Your task to perform on an android device: turn on the 12-hour format for clock Image 0: 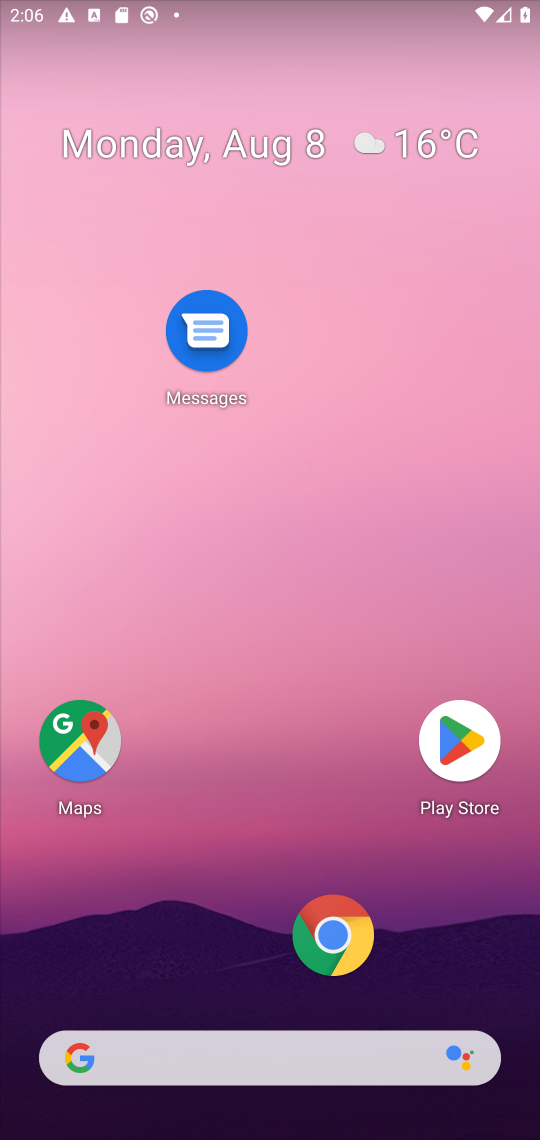
Step 0: drag from (301, 1060) to (210, 253)
Your task to perform on an android device: turn on the 12-hour format for clock Image 1: 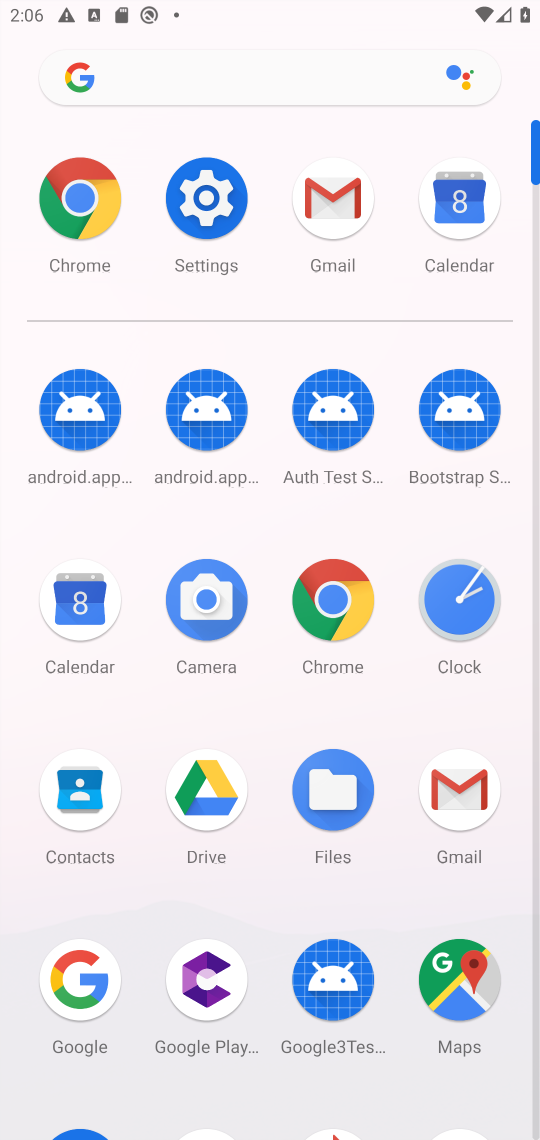
Step 1: click (479, 610)
Your task to perform on an android device: turn on the 12-hour format for clock Image 2: 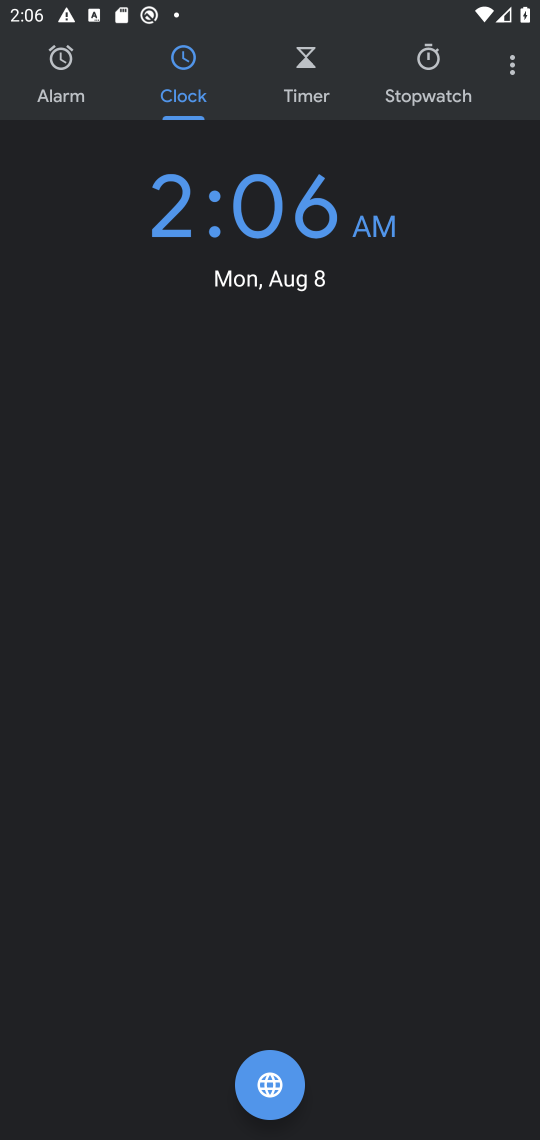
Step 2: click (514, 73)
Your task to perform on an android device: turn on the 12-hour format for clock Image 3: 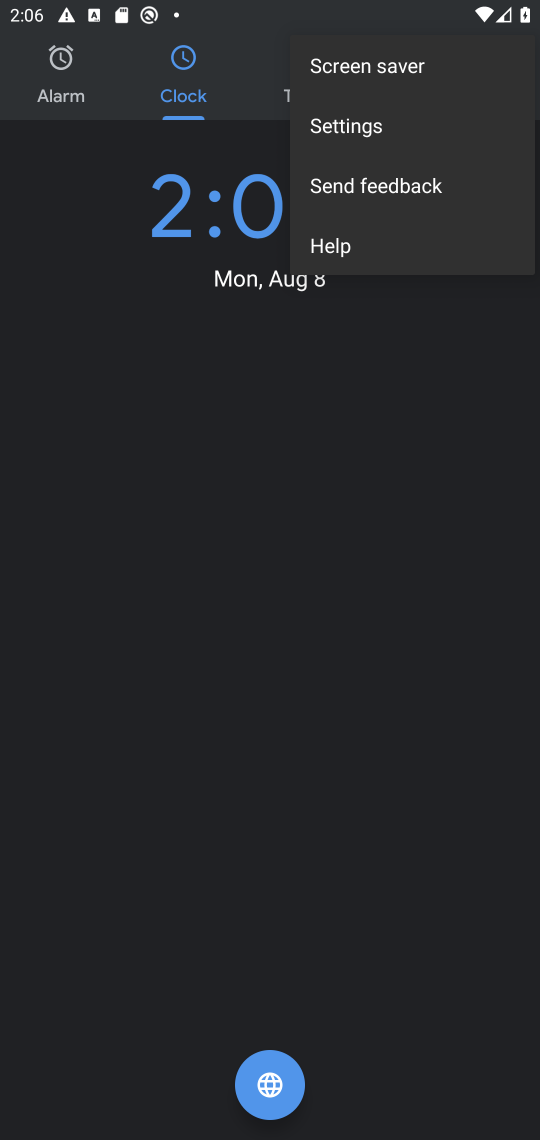
Step 3: click (384, 126)
Your task to perform on an android device: turn on the 12-hour format for clock Image 4: 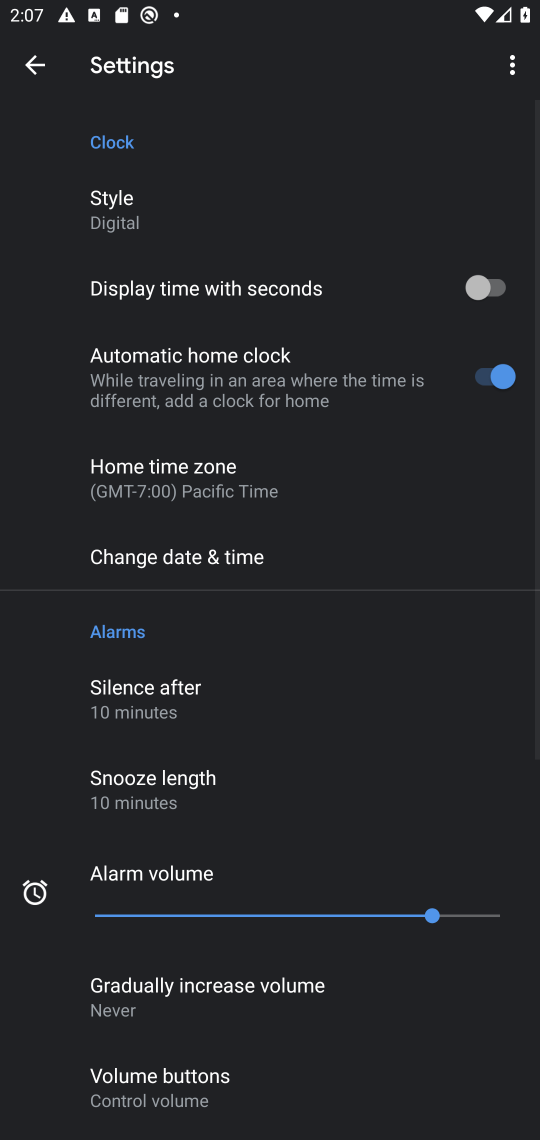
Step 4: click (237, 569)
Your task to perform on an android device: turn on the 12-hour format for clock Image 5: 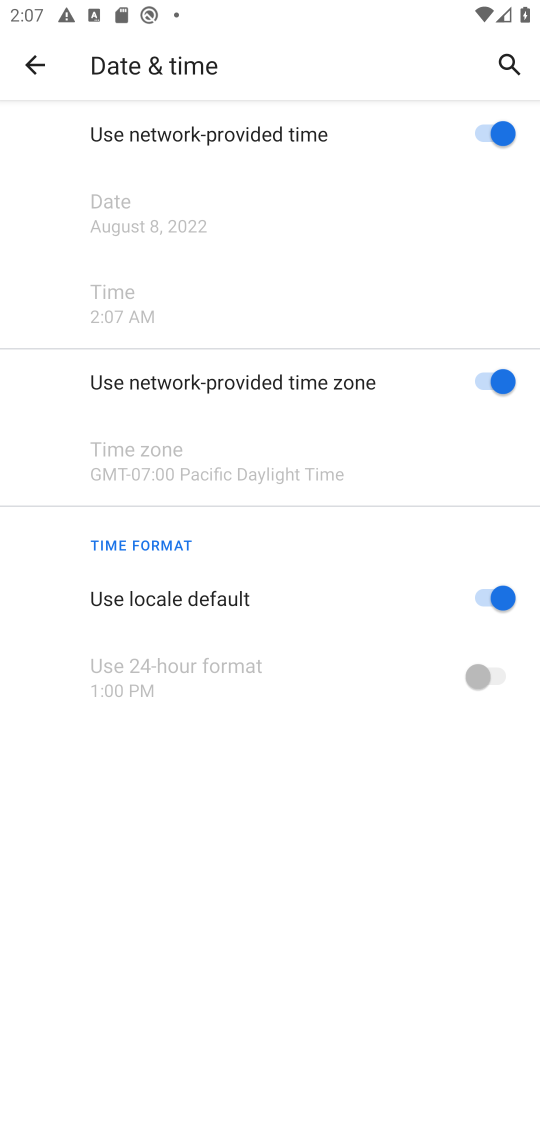
Step 5: click (485, 590)
Your task to perform on an android device: turn on the 12-hour format for clock Image 6: 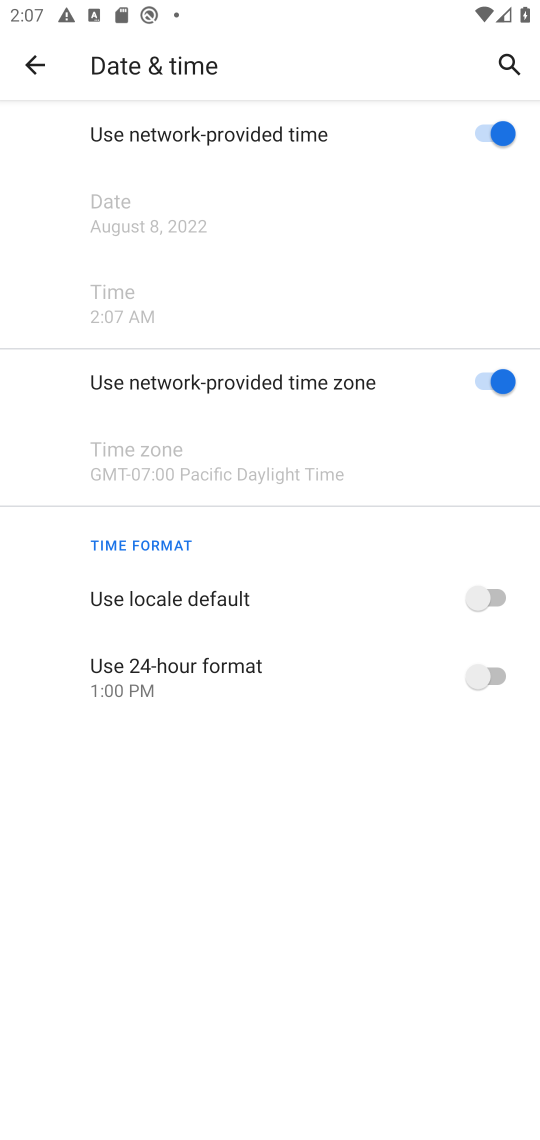
Step 6: task complete